Your task to perform on an android device: turn off picture-in-picture Image 0: 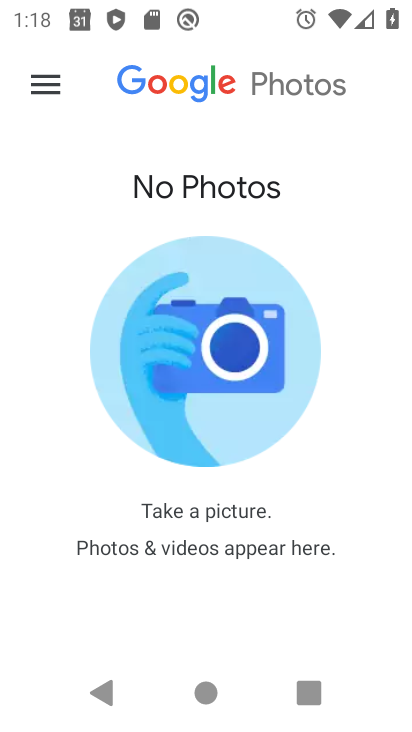
Step 0: press back button
Your task to perform on an android device: turn off picture-in-picture Image 1: 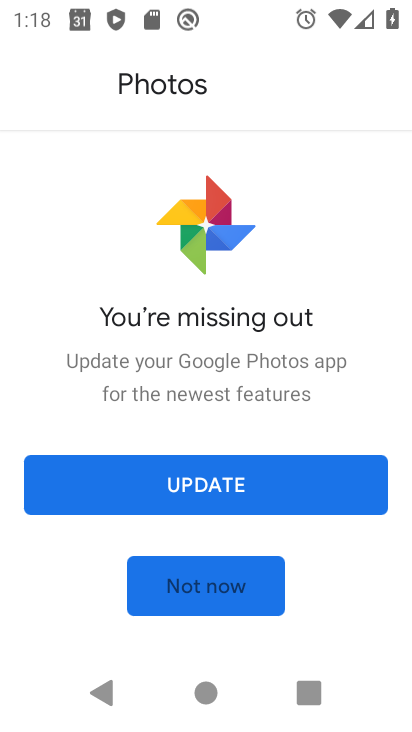
Step 1: click (216, 590)
Your task to perform on an android device: turn off picture-in-picture Image 2: 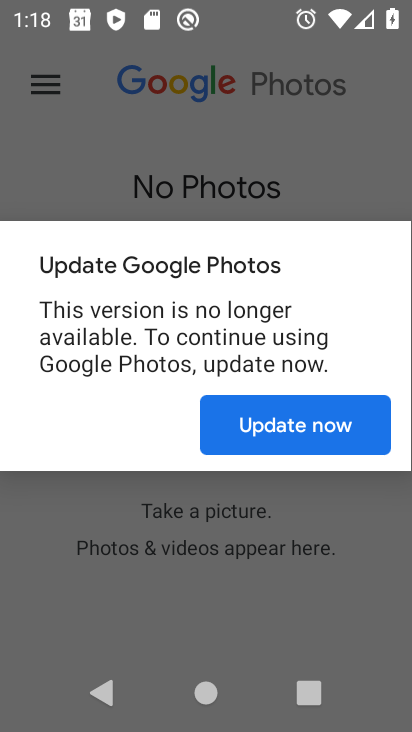
Step 2: click (291, 424)
Your task to perform on an android device: turn off picture-in-picture Image 3: 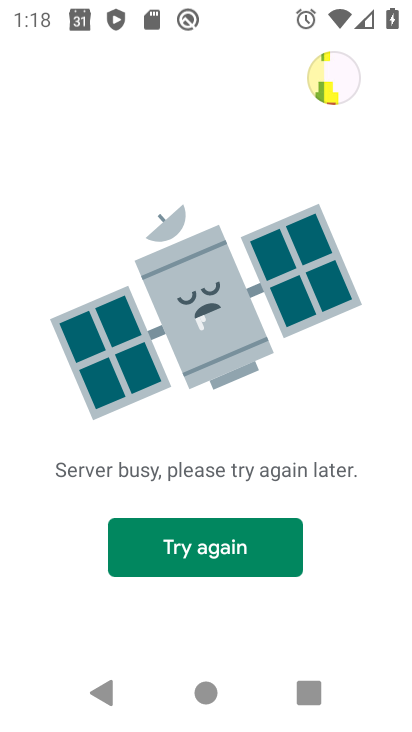
Step 3: press home button
Your task to perform on an android device: turn off picture-in-picture Image 4: 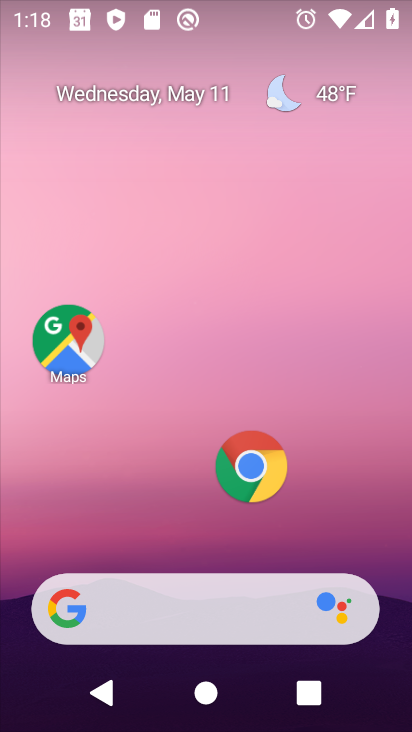
Step 4: drag from (134, 526) to (278, 20)
Your task to perform on an android device: turn off picture-in-picture Image 5: 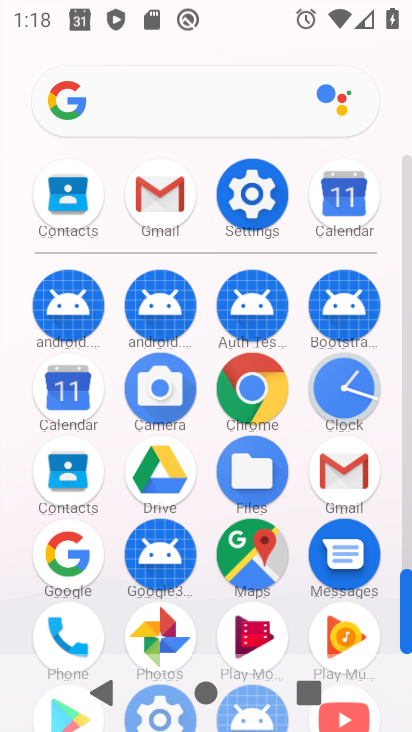
Step 5: click (241, 199)
Your task to perform on an android device: turn off picture-in-picture Image 6: 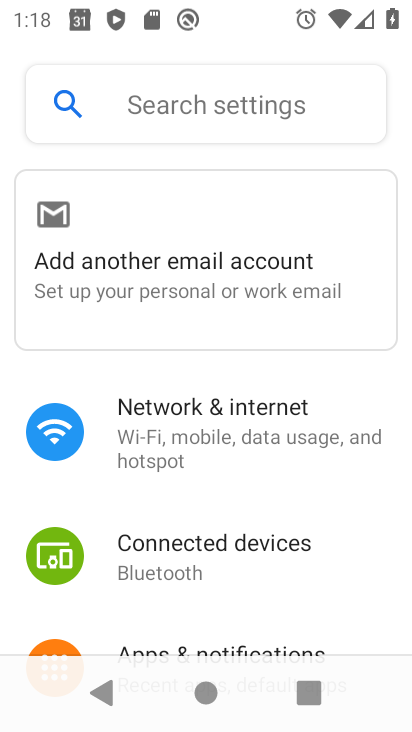
Step 6: drag from (197, 587) to (344, 129)
Your task to perform on an android device: turn off picture-in-picture Image 7: 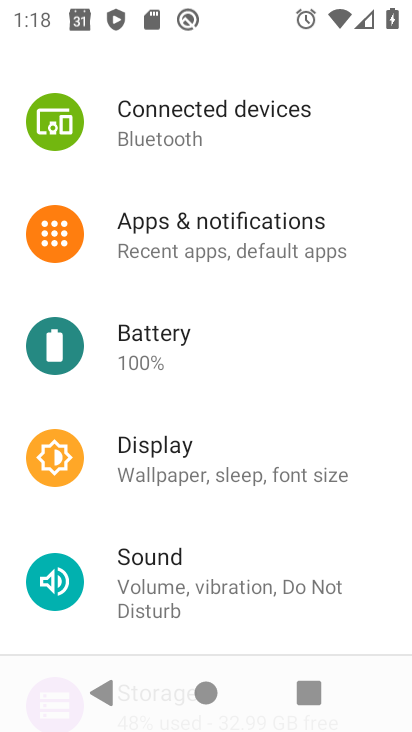
Step 7: click (217, 234)
Your task to perform on an android device: turn off picture-in-picture Image 8: 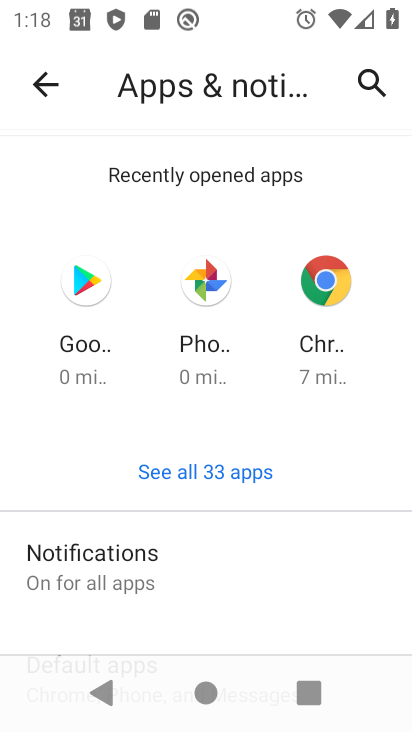
Step 8: drag from (150, 581) to (308, 15)
Your task to perform on an android device: turn off picture-in-picture Image 9: 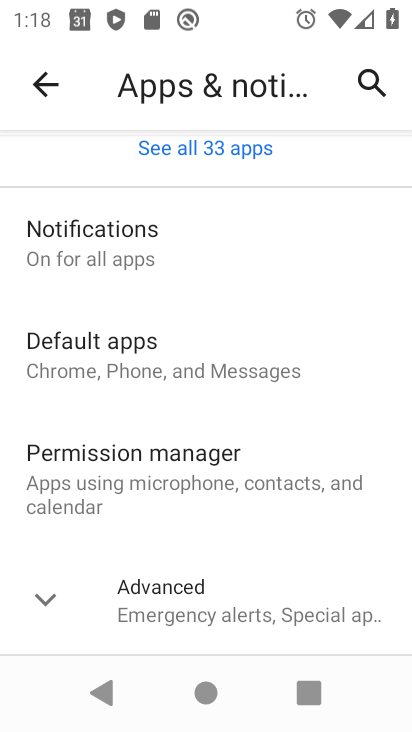
Step 9: click (207, 611)
Your task to perform on an android device: turn off picture-in-picture Image 10: 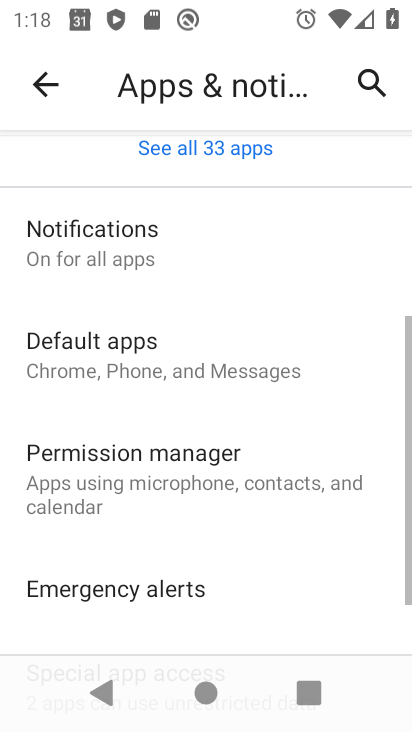
Step 10: drag from (206, 603) to (357, 32)
Your task to perform on an android device: turn off picture-in-picture Image 11: 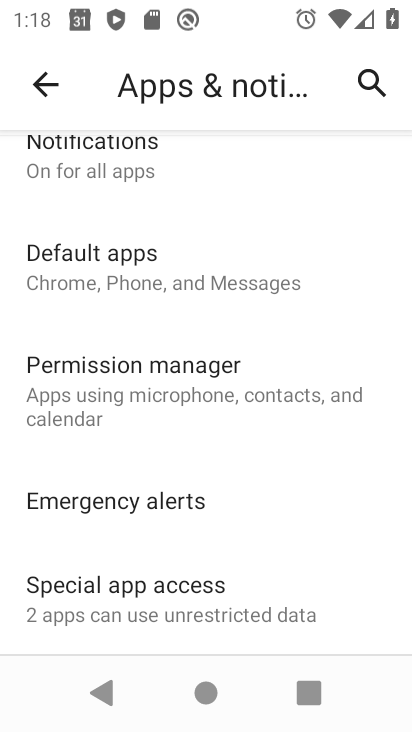
Step 11: click (147, 596)
Your task to perform on an android device: turn off picture-in-picture Image 12: 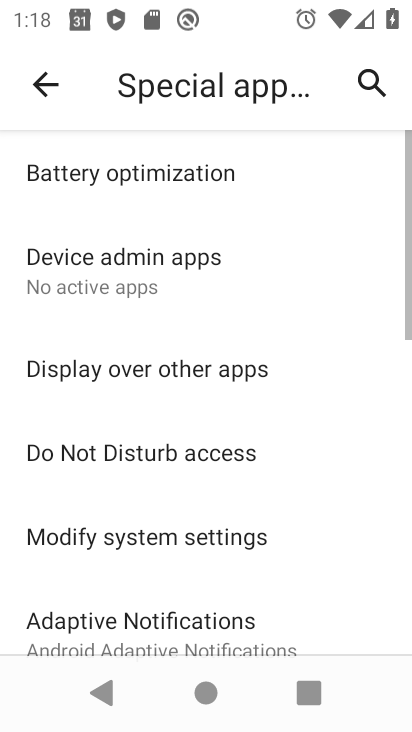
Step 12: drag from (148, 605) to (283, 148)
Your task to perform on an android device: turn off picture-in-picture Image 13: 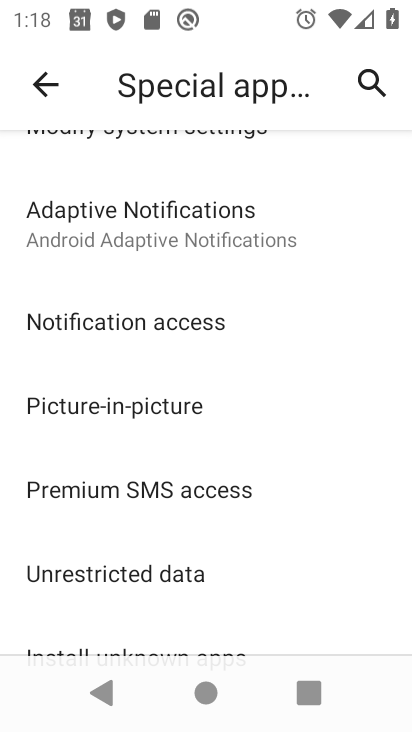
Step 13: click (63, 416)
Your task to perform on an android device: turn off picture-in-picture Image 14: 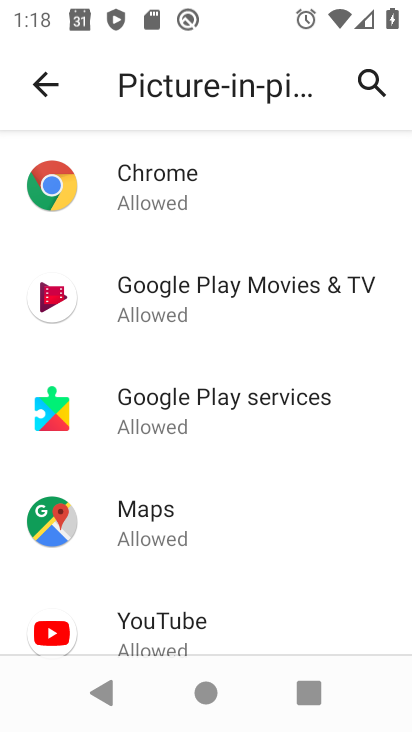
Step 14: click (165, 180)
Your task to perform on an android device: turn off picture-in-picture Image 15: 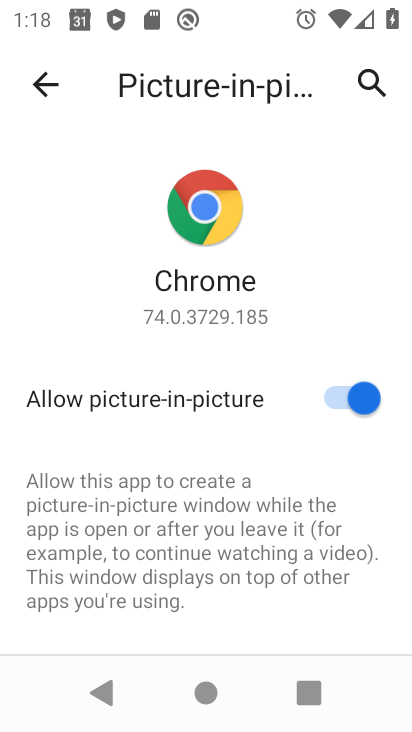
Step 15: click (344, 397)
Your task to perform on an android device: turn off picture-in-picture Image 16: 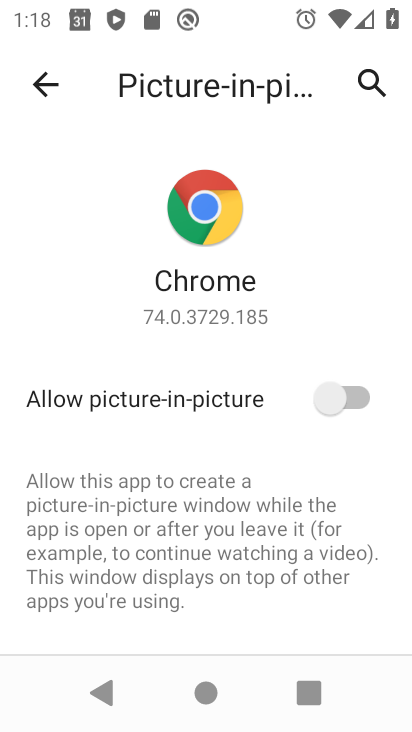
Step 16: task complete